Your task to perform on an android device: snooze an email in the gmail app Image 0: 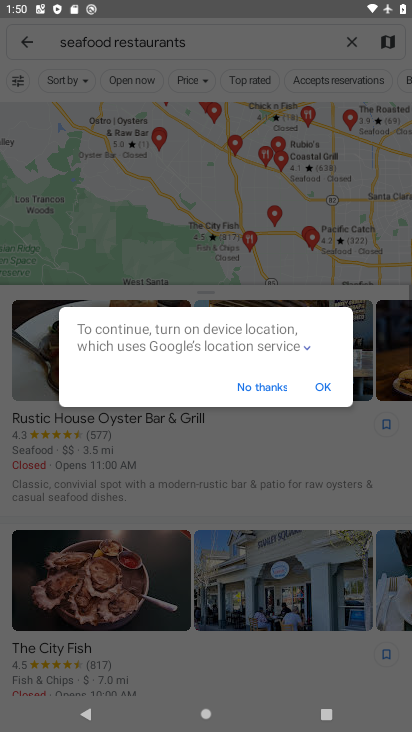
Step 0: press home button
Your task to perform on an android device: snooze an email in the gmail app Image 1: 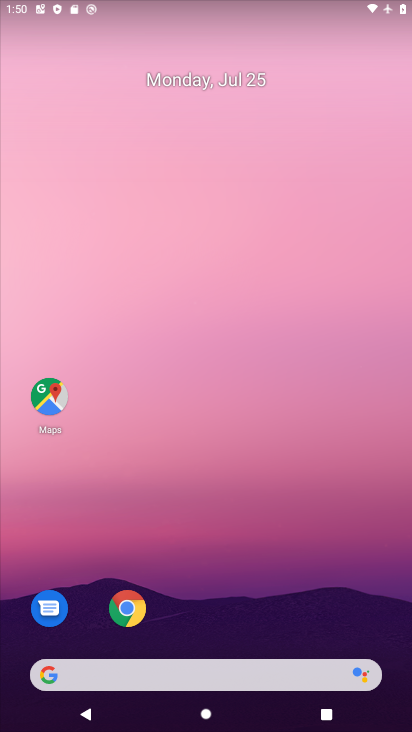
Step 1: drag from (231, 646) to (264, 160)
Your task to perform on an android device: snooze an email in the gmail app Image 2: 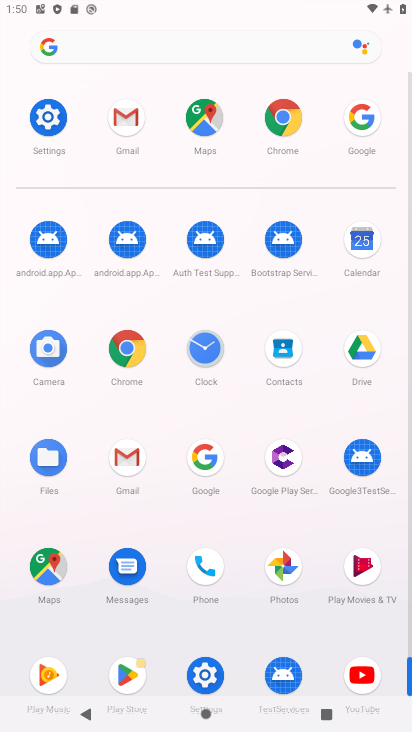
Step 2: click (130, 465)
Your task to perform on an android device: snooze an email in the gmail app Image 3: 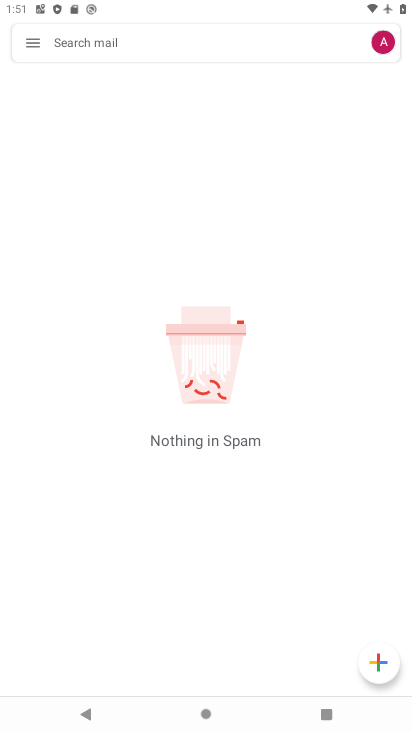
Step 3: click (32, 50)
Your task to perform on an android device: snooze an email in the gmail app Image 4: 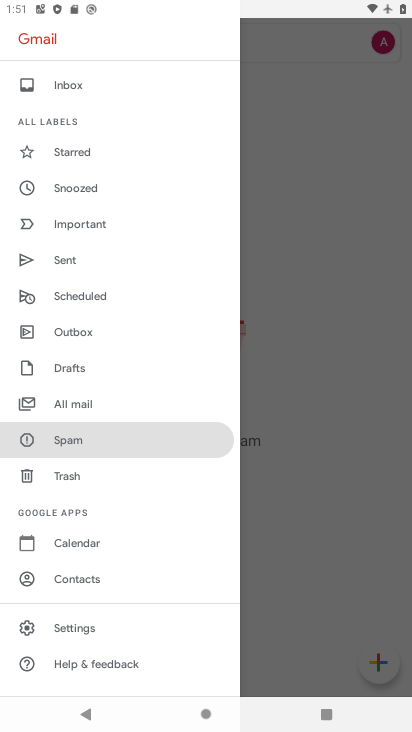
Step 4: click (104, 399)
Your task to perform on an android device: snooze an email in the gmail app Image 5: 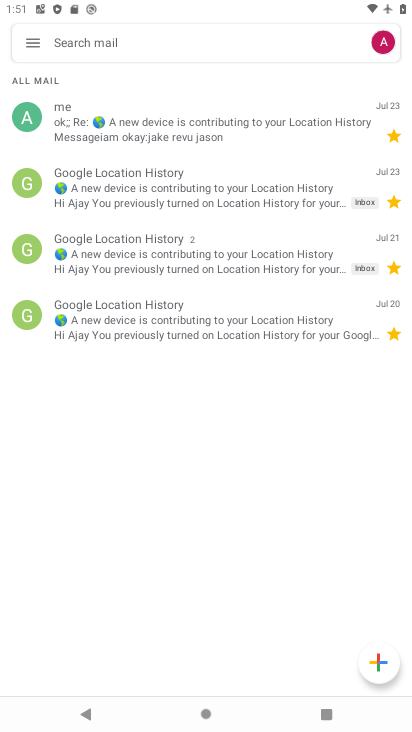
Step 5: click (189, 123)
Your task to perform on an android device: snooze an email in the gmail app Image 6: 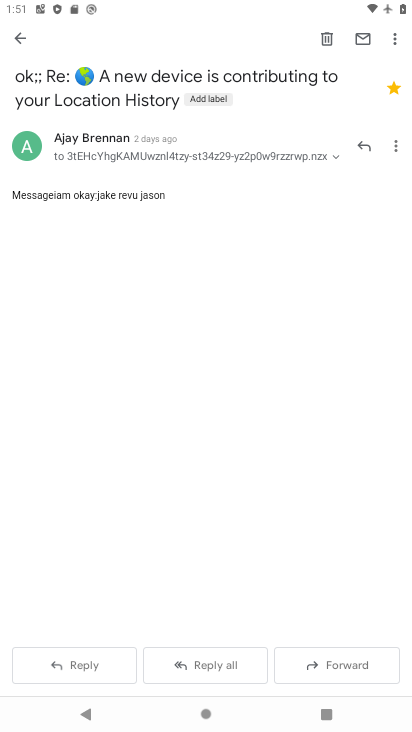
Step 6: click (400, 37)
Your task to perform on an android device: snooze an email in the gmail app Image 7: 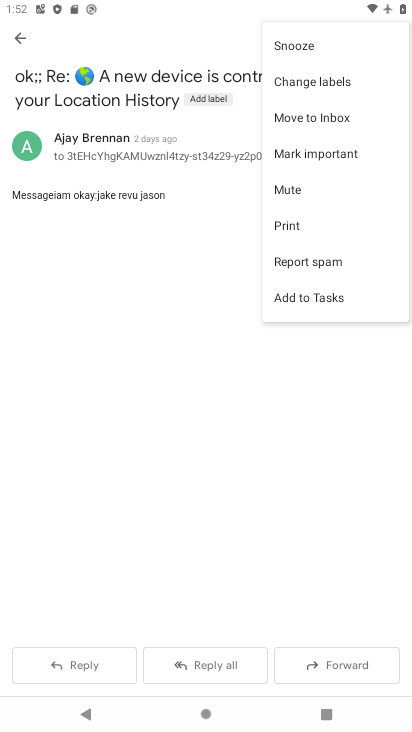
Step 7: click (302, 43)
Your task to perform on an android device: snooze an email in the gmail app Image 8: 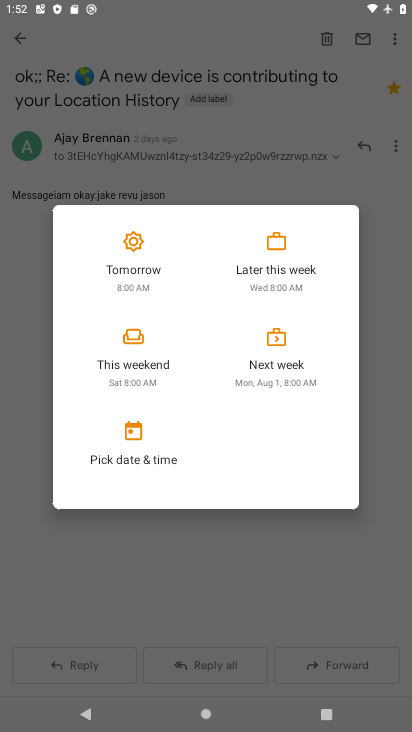
Step 8: click (144, 265)
Your task to perform on an android device: snooze an email in the gmail app Image 9: 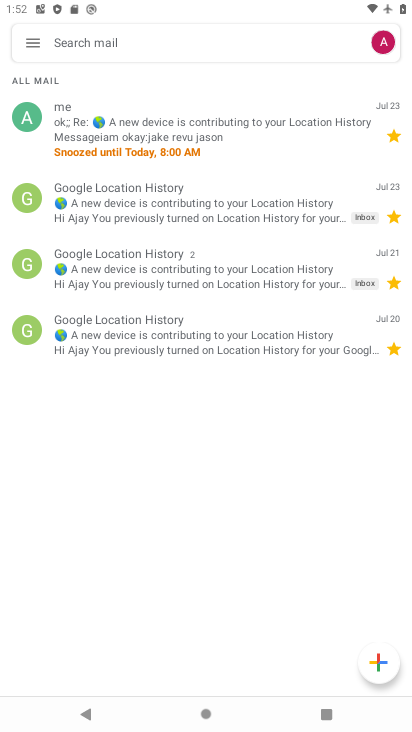
Step 9: click (181, 134)
Your task to perform on an android device: snooze an email in the gmail app Image 10: 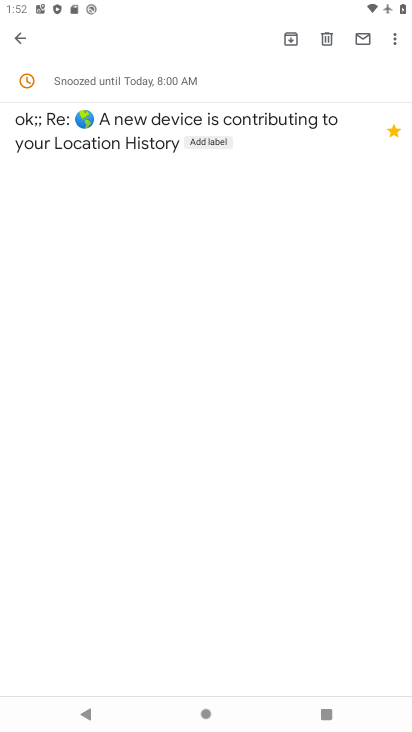
Step 10: task complete